Your task to perform on an android device: change your default location settings in chrome Image 0: 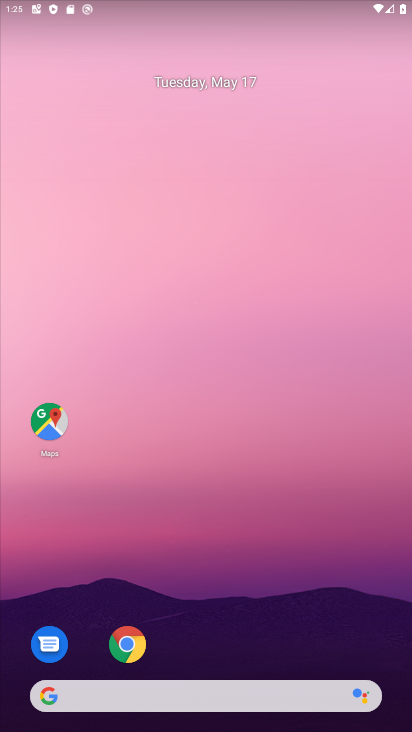
Step 0: click (137, 646)
Your task to perform on an android device: change your default location settings in chrome Image 1: 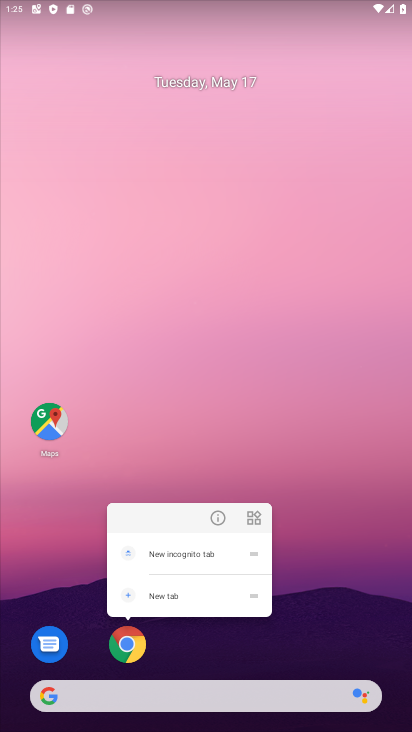
Step 1: click (137, 646)
Your task to perform on an android device: change your default location settings in chrome Image 2: 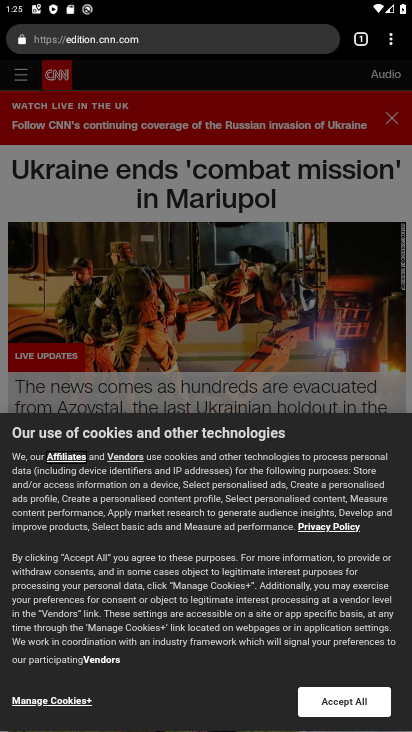
Step 2: click (386, 43)
Your task to perform on an android device: change your default location settings in chrome Image 3: 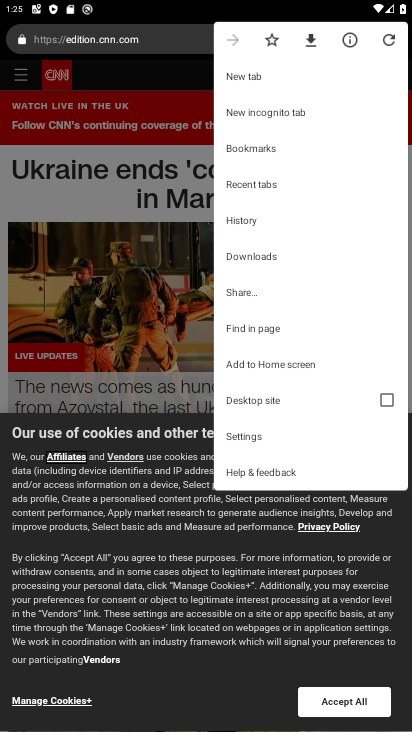
Step 3: click (261, 440)
Your task to perform on an android device: change your default location settings in chrome Image 4: 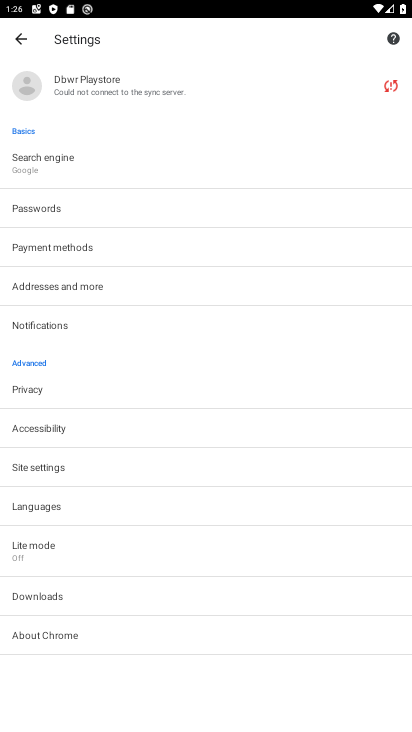
Step 4: click (80, 475)
Your task to perform on an android device: change your default location settings in chrome Image 5: 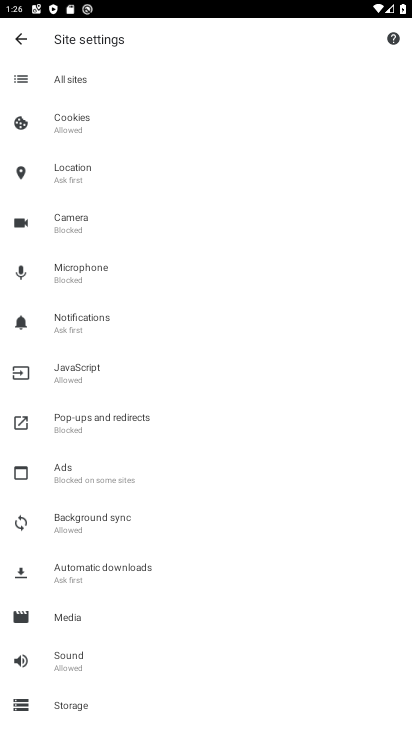
Step 5: click (66, 175)
Your task to perform on an android device: change your default location settings in chrome Image 6: 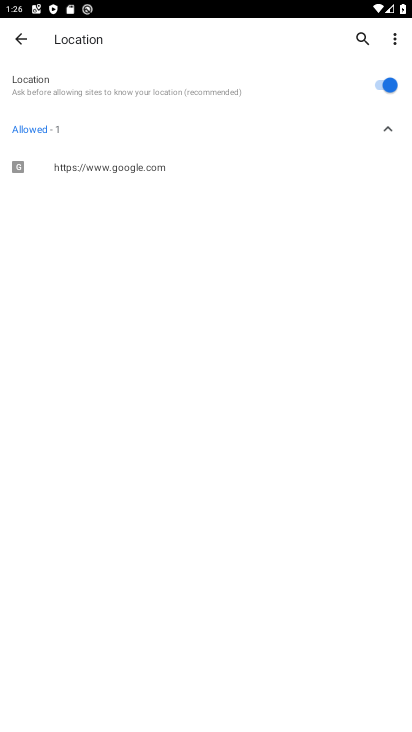
Step 6: click (385, 93)
Your task to perform on an android device: change your default location settings in chrome Image 7: 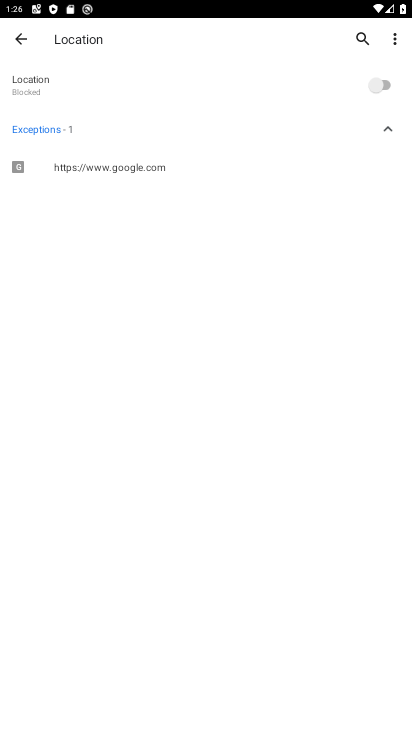
Step 7: task complete